Your task to perform on an android device: Open Google Chrome Image 0: 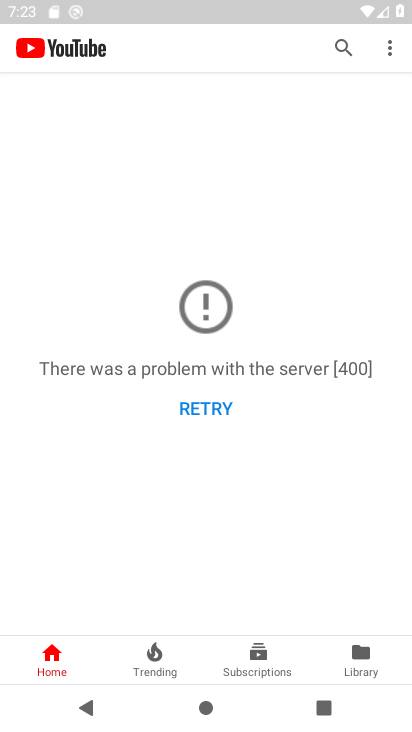
Step 0: press home button
Your task to perform on an android device: Open Google Chrome Image 1: 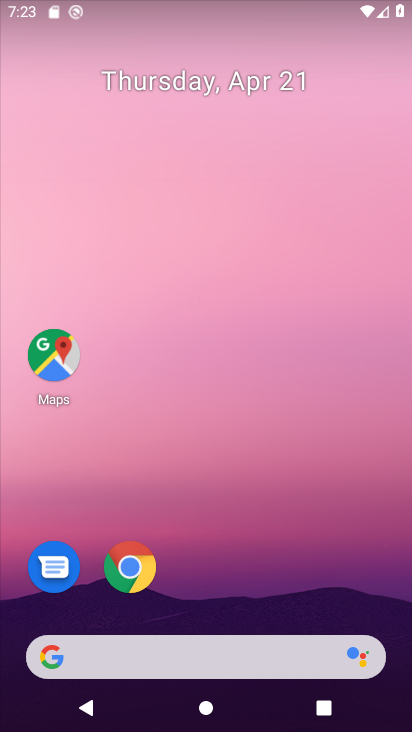
Step 1: click (131, 564)
Your task to perform on an android device: Open Google Chrome Image 2: 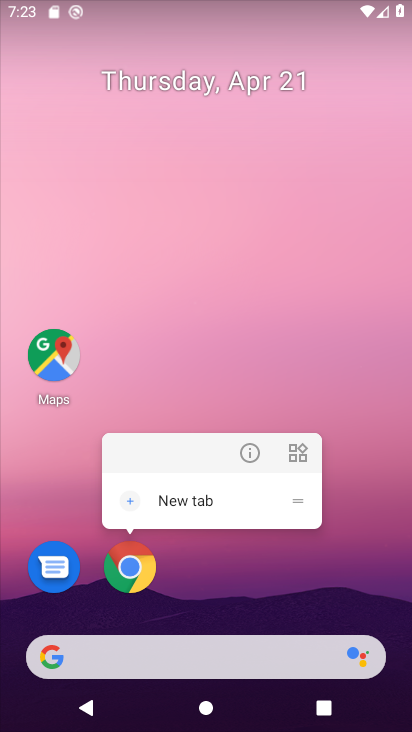
Step 2: click (130, 564)
Your task to perform on an android device: Open Google Chrome Image 3: 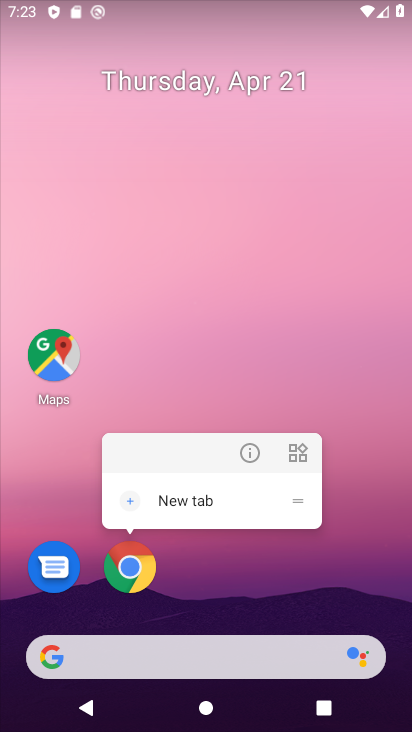
Step 3: click (134, 570)
Your task to perform on an android device: Open Google Chrome Image 4: 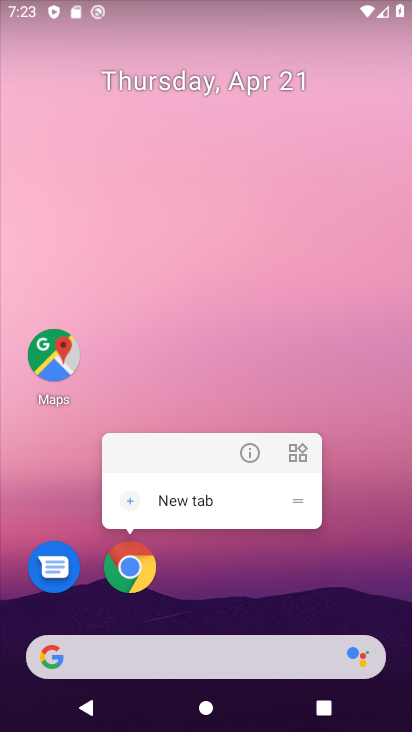
Step 4: click (135, 569)
Your task to perform on an android device: Open Google Chrome Image 5: 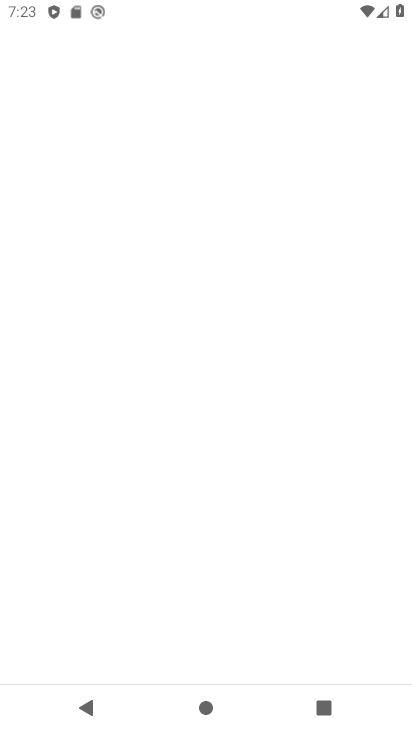
Step 5: click (132, 579)
Your task to perform on an android device: Open Google Chrome Image 6: 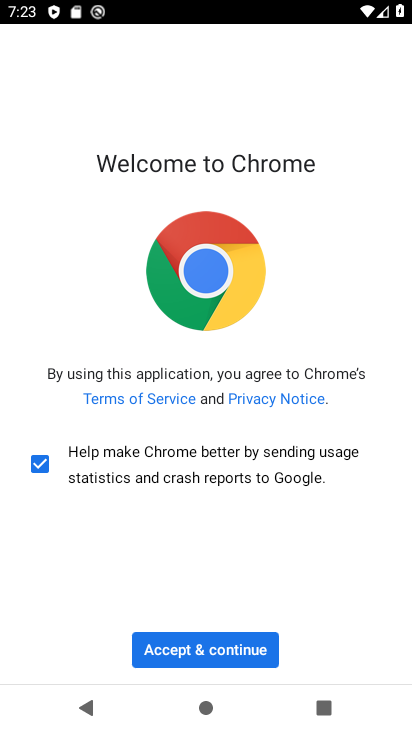
Step 6: click (186, 638)
Your task to perform on an android device: Open Google Chrome Image 7: 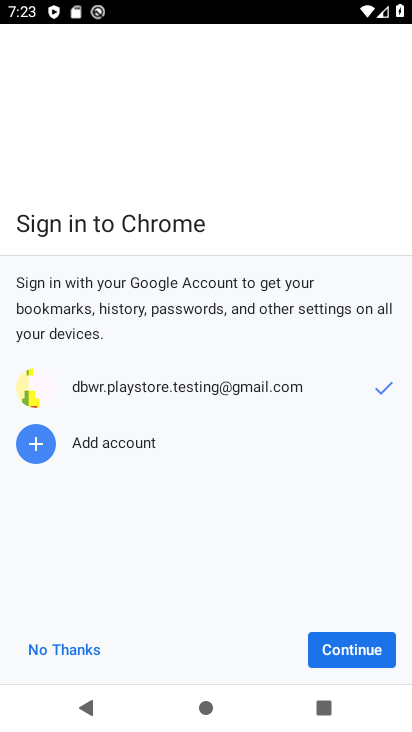
Step 7: click (340, 643)
Your task to perform on an android device: Open Google Chrome Image 8: 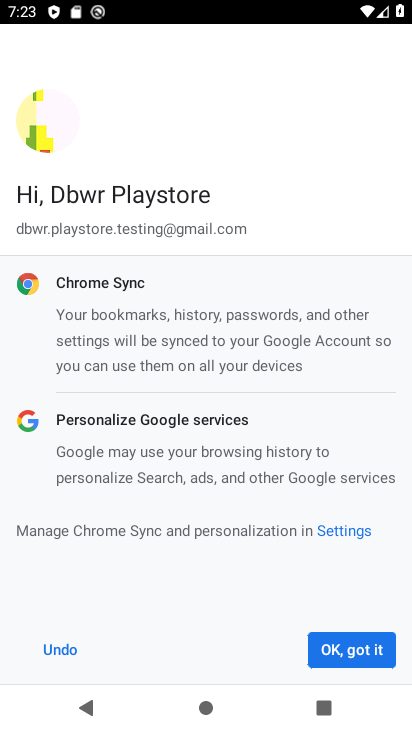
Step 8: click (344, 652)
Your task to perform on an android device: Open Google Chrome Image 9: 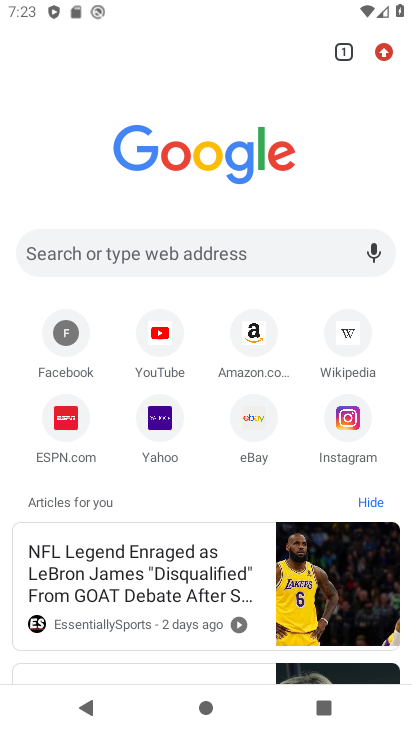
Step 9: task complete